Your task to perform on an android device: Search for Italian restaurants on Maps Image 0: 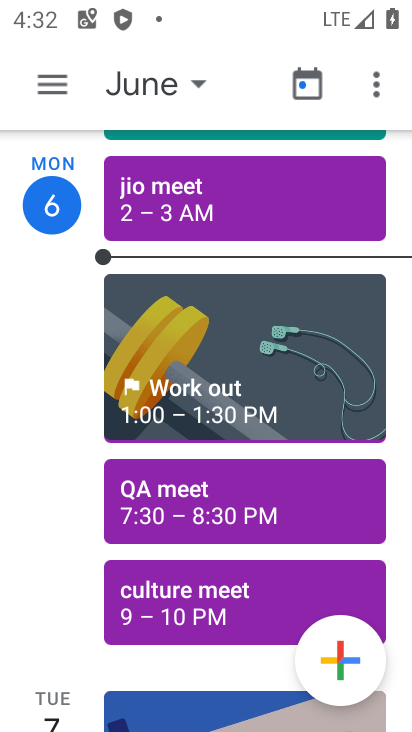
Step 0: press home button
Your task to perform on an android device: Search for Italian restaurants on Maps Image 1: 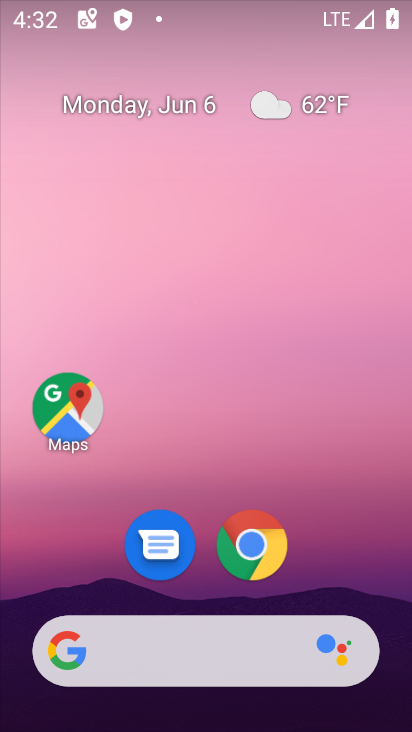
Step 1: drag from (201, 725) to (171, 57)
Your task to perform on an android device: Search for Italian restaurants on Maps Image 2: 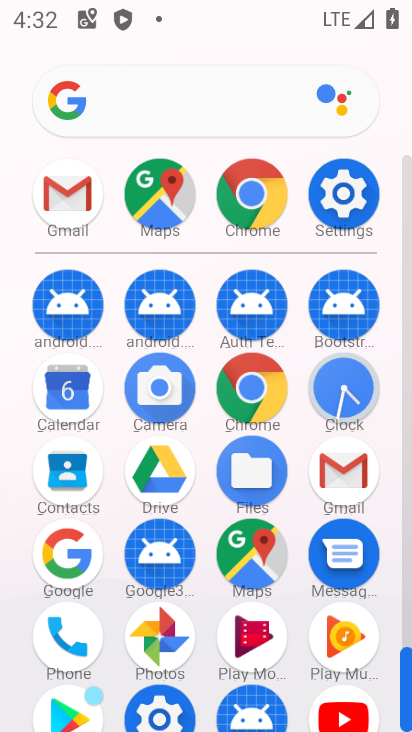
Step 2: click (245, 548)
Your task to perform on an android device: Search for Italian restaurants on Maps Image 3: 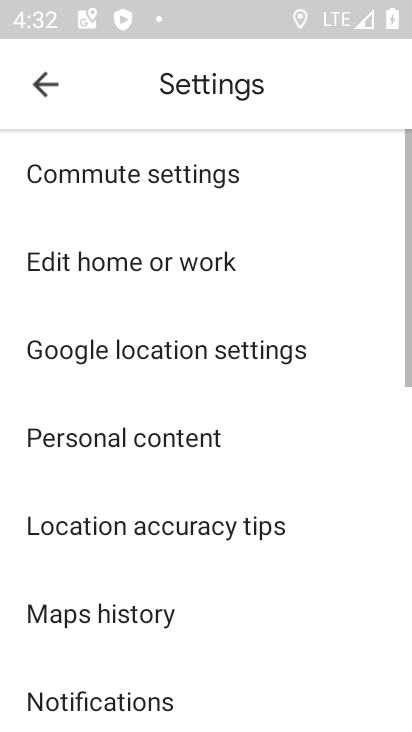
Step 3: click (46, 82)
Your task to perform on an android device: Search for Italian restaurants on Maps Image 4: 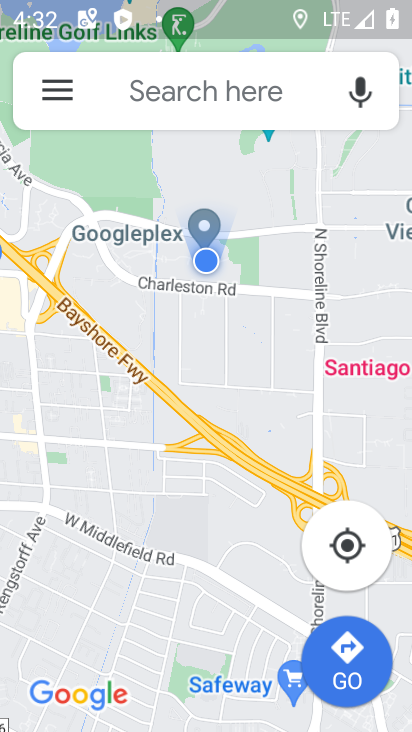
Step 4: click (179, 91)
Your task to perform on an android device: Search for Italian restaurants on Maps Image 5: 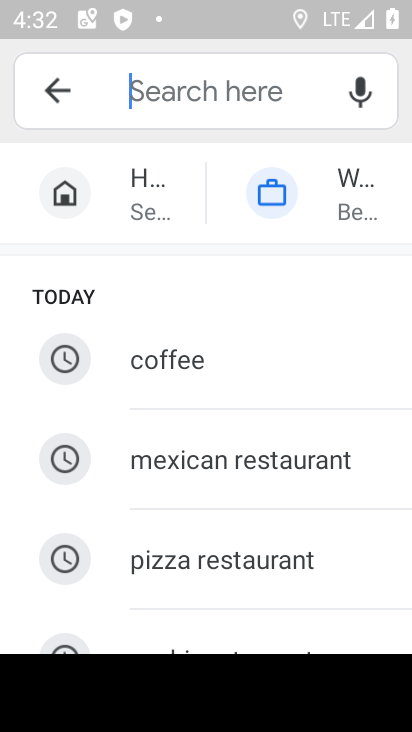
Step 5: type "italian restaurants"
Your task to perform on an android device: Search for Italian restaurants on Maps Image 6: 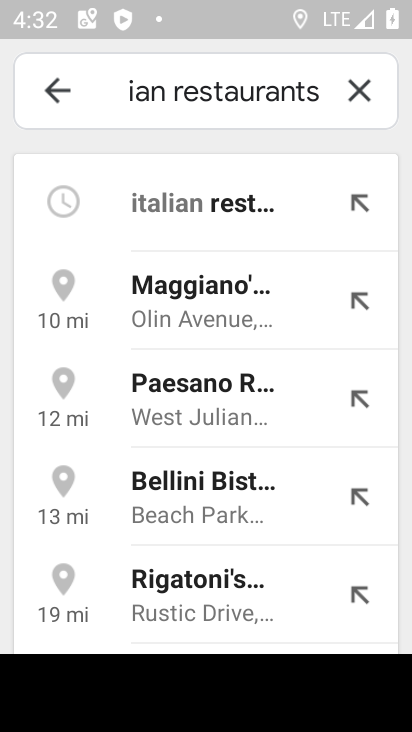
Step 6: click (246, 201)
Your task to perform on an android device: Search for Italian restaurants on Maps Image 7: 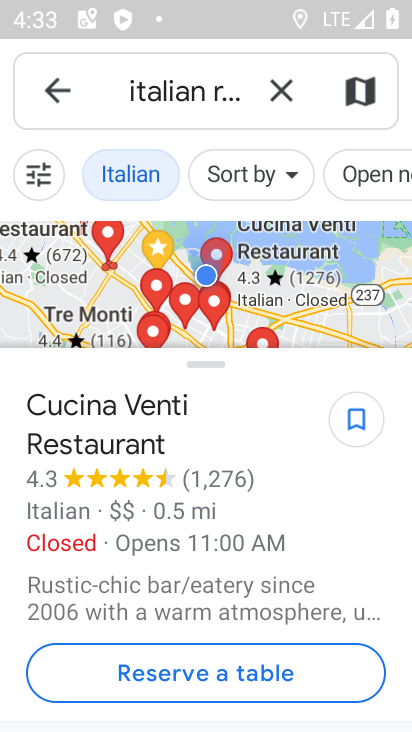
Step 7: task complete